Your task to perform on an android device: Install the Lyft app Image 0: 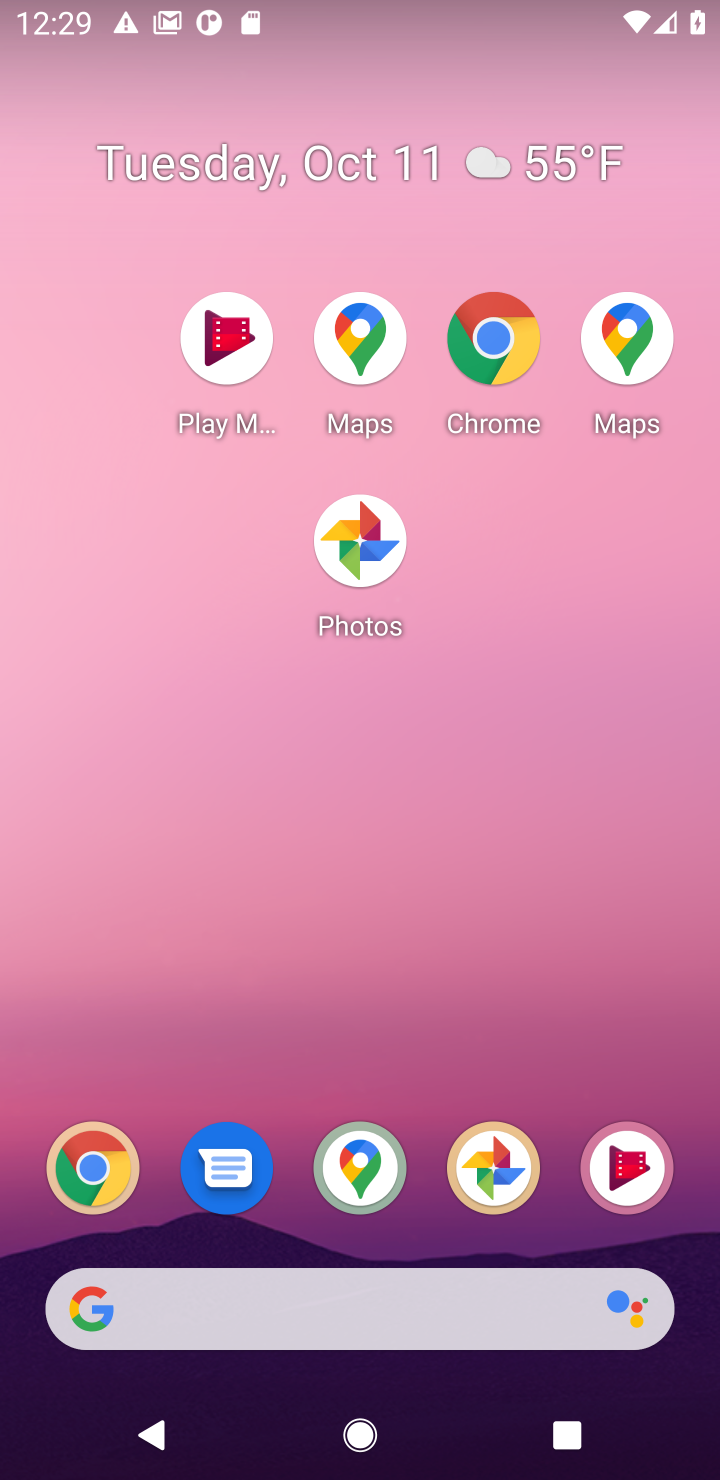
Step 0: drag from (330, 947) to (331, 770)
Your task to perform on an android device: Install the Lyft app Image 1: 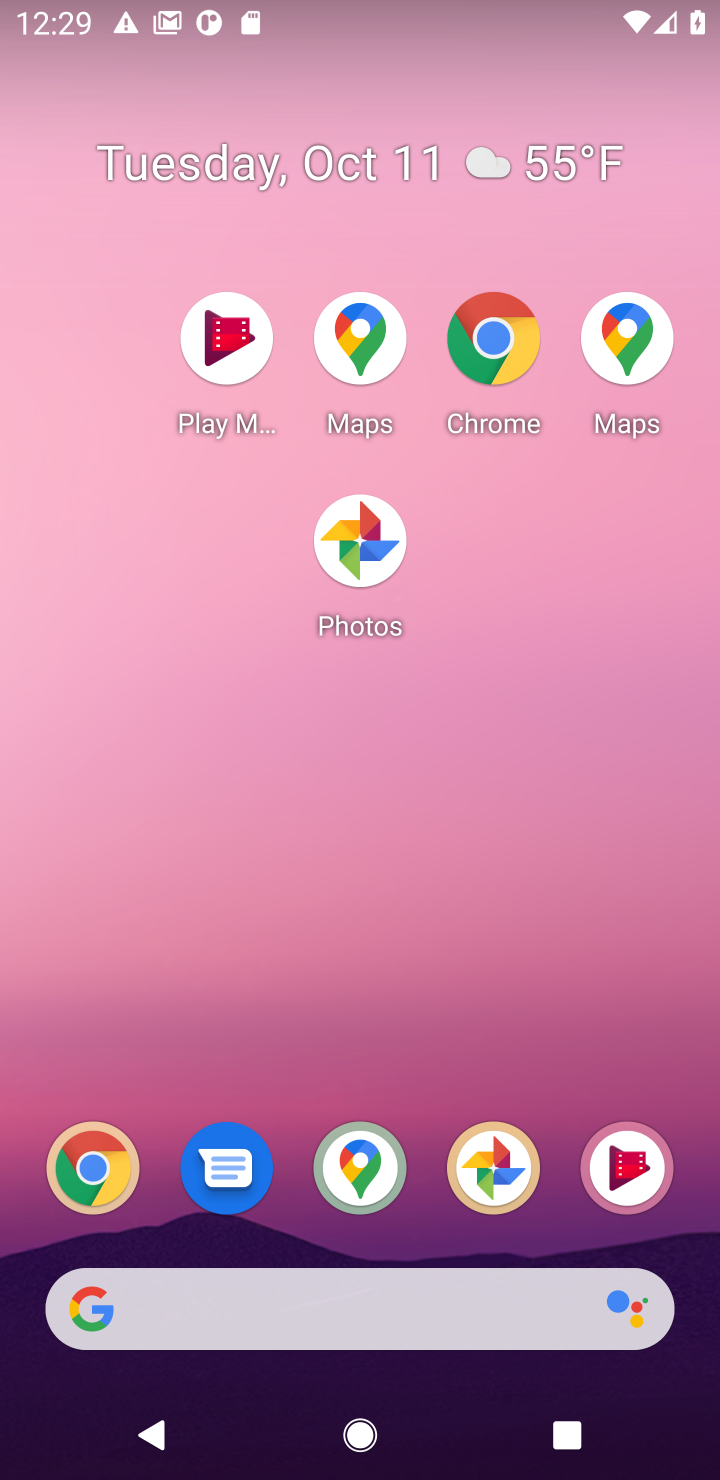
Step 1: drag from (335, 1063) to (397, 231)
Your task to perform on an android device: Install the Lyft app Image 2: 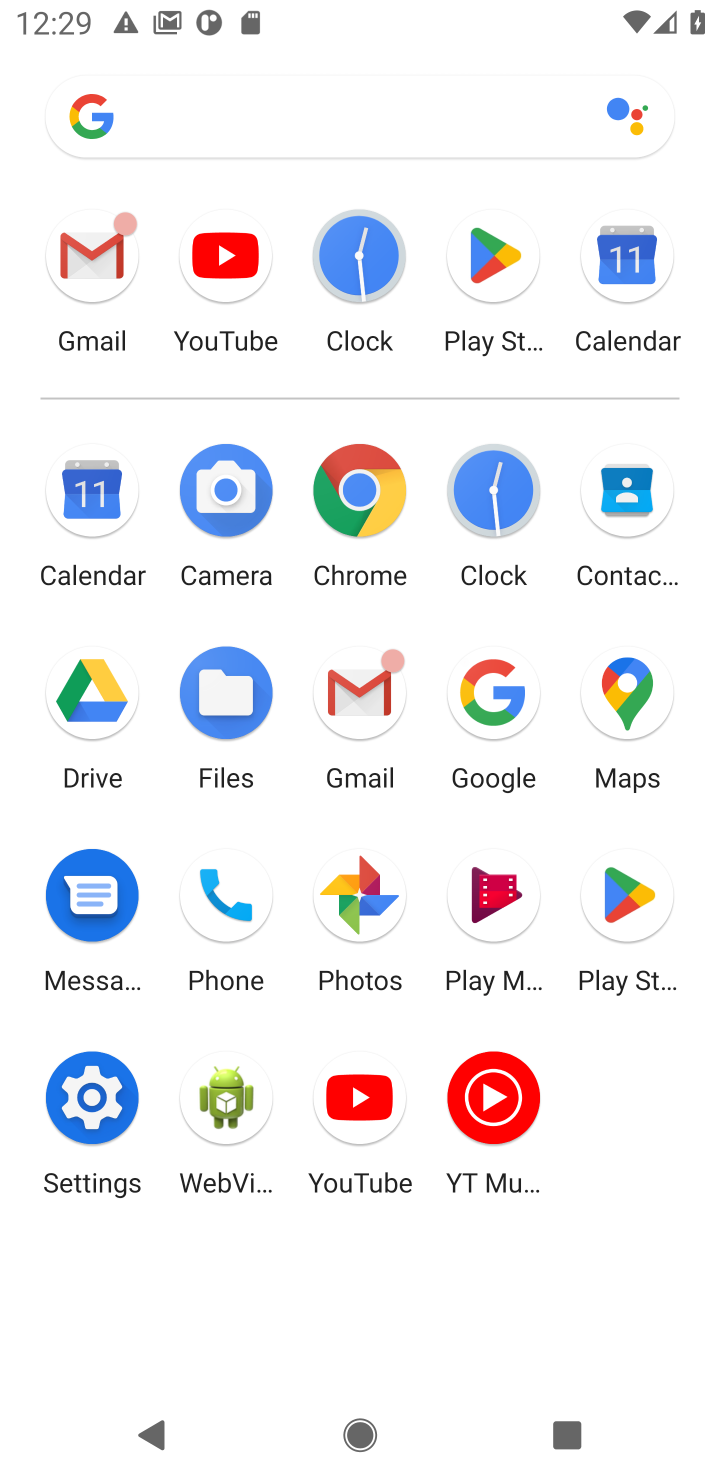
Step 2: click (465, 296)
Your task to perform on an android device: Install the Lyft app Image 3: 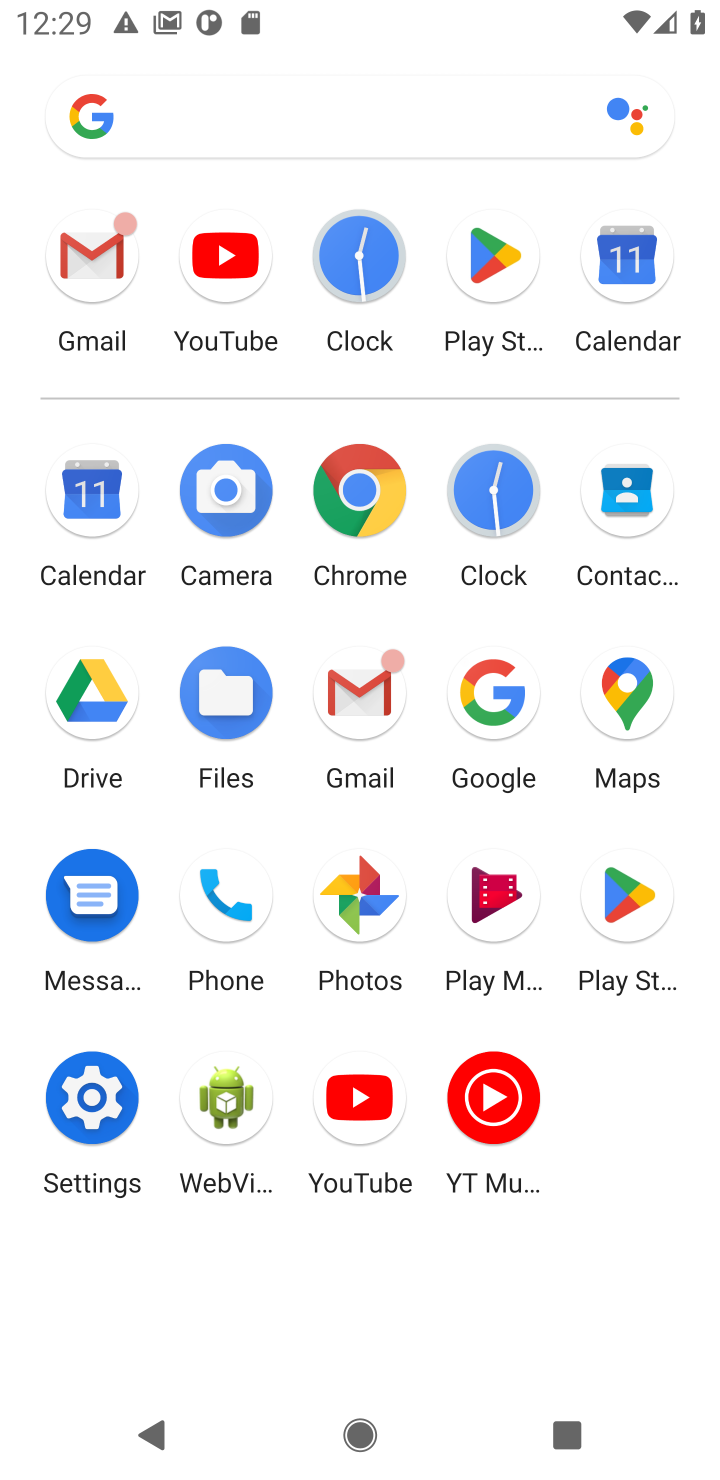
Step 3: click (465, 296)
Your task to perform on an android device: Install the Lyft app Image 4: 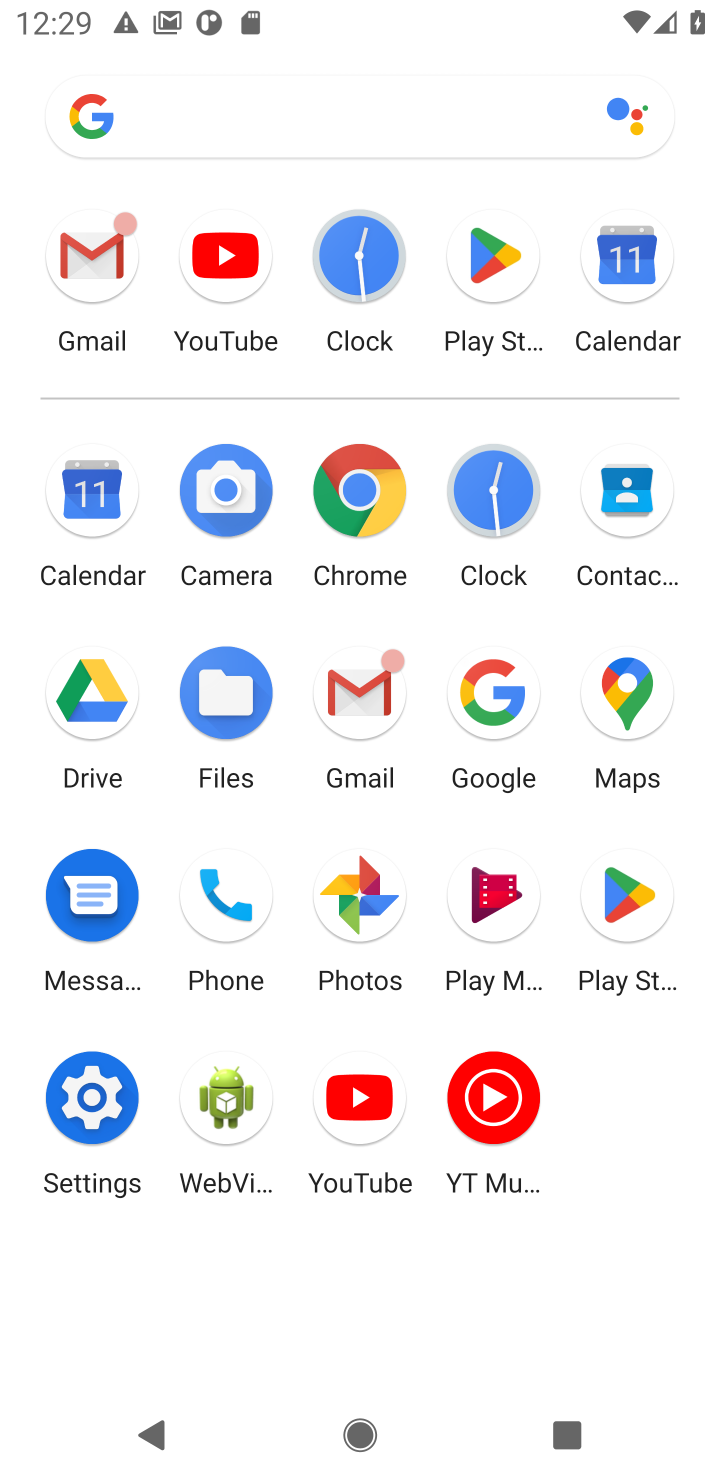
Step 4: click (500, 311)
Your task to perform on an android device: Install the Lyft app Image 5: 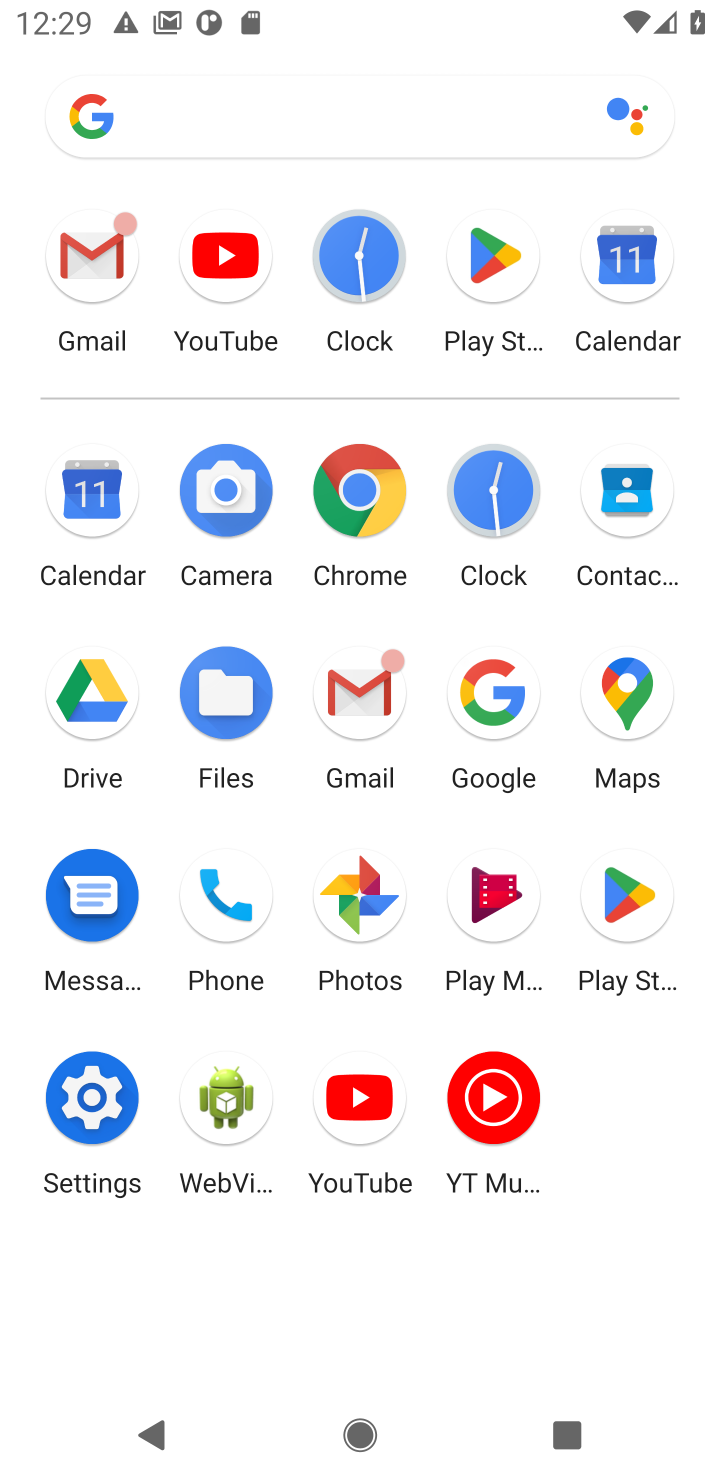
Step 5: click (500, 311)
Your task to perform on an android device: Install the Lyft app Image 6: 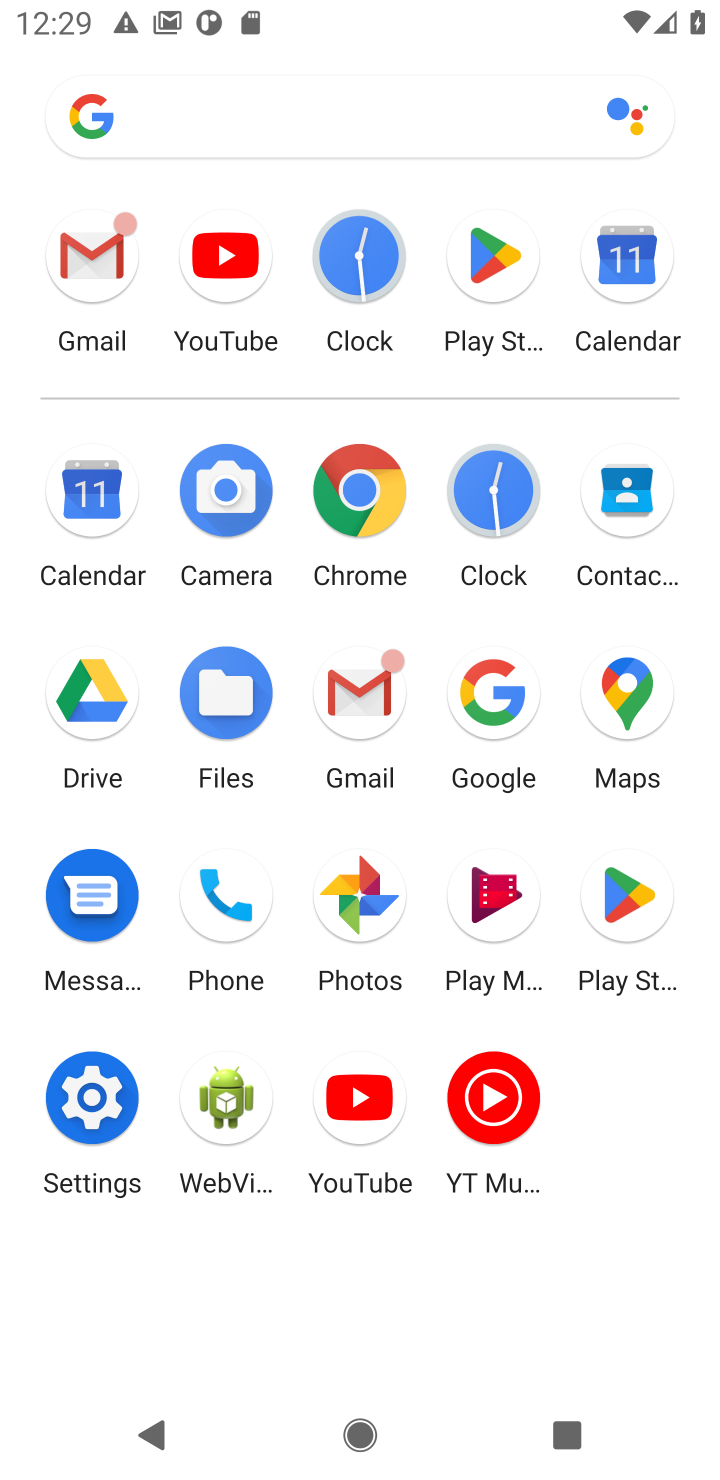
Step 6: task complete